Your task to perform on an android device: toggle show notifications on the lock screen Image 0: 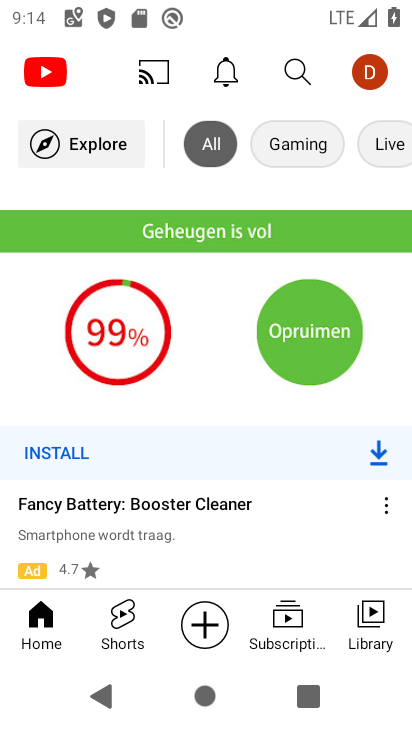
Step 0: press back button
Your task to perform on an android device: toggle show notifications on the lock screen Image 1: 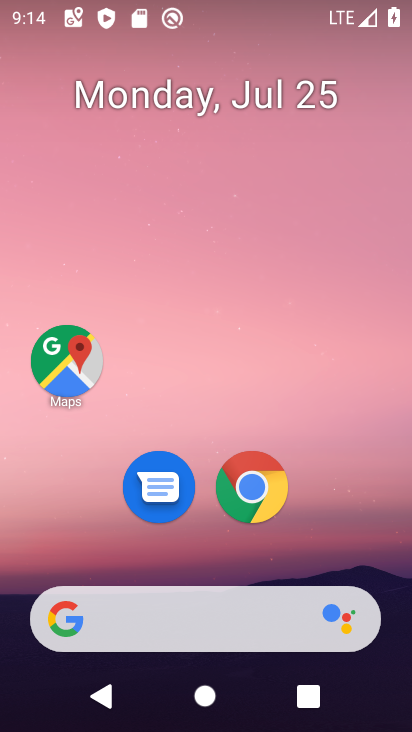
Step 1: drag from (222, 576) to (389, 0)
Your task to perform on an android device: toggle show notifications on the lock screen Image 2: 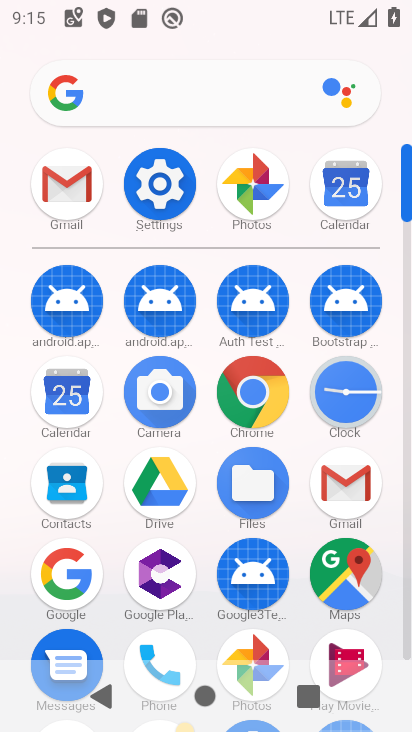
Step 2: click (142, 183)
Your task to perform on an android device: toggle show notifications on the lock screen Image 3: 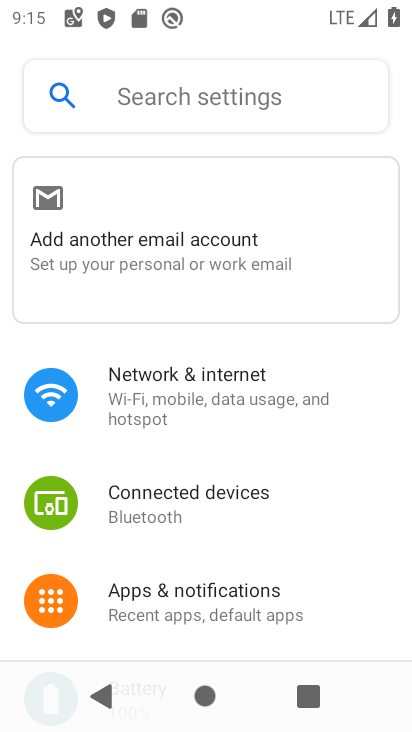
Step 3: click (242, 606)
Your task to perform on an android device: toggle show notifications on the lock screen Image 4: 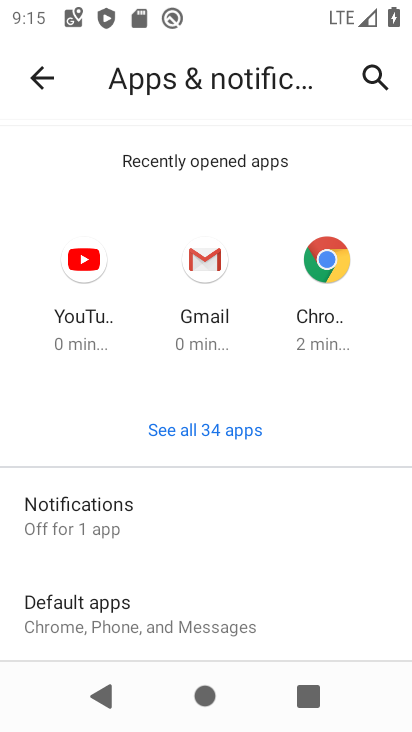
Step 4: click (137, 501)
Your task to perform on an android device: toggle show notifications on the lock screen Image 5: 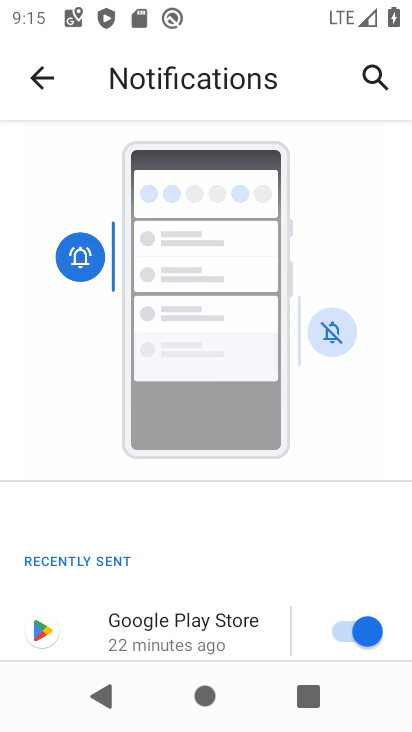
Step 5: drag from (142, 632) to (285, 147)
Your task to perform on an android device: toggle show notifications on the lock screen Image 6: 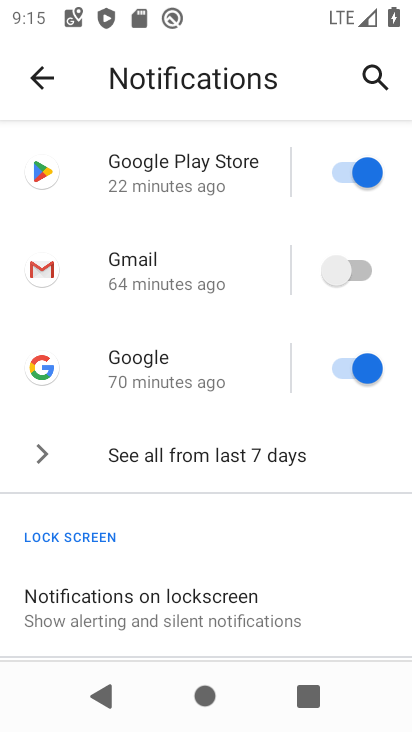
Step 6: click (167, 611)
Your task to perform on an android device: toggle show notifications on the lock screen Image 7: 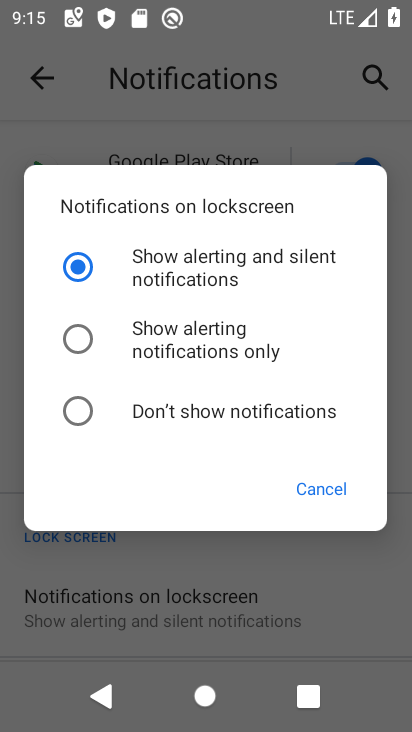
Step 7: click (73, 272)
Your task to perform on an android device: toggle show notifications on the lock screen Image 8: 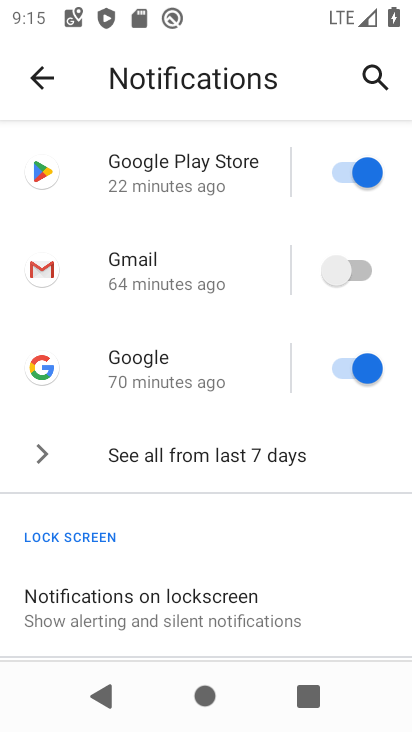
Step 8: task complete